Your task to perform on an android device: find photos in the google photos app Image 0: 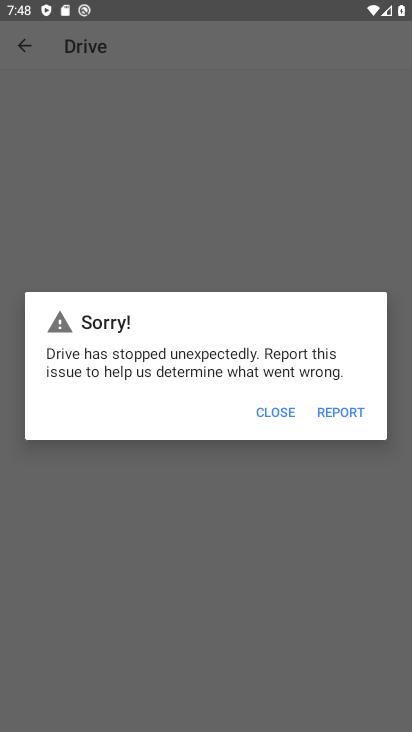
Step 0: press home button
Your task to perform on an android device: find photos in the google photos app Image 1: 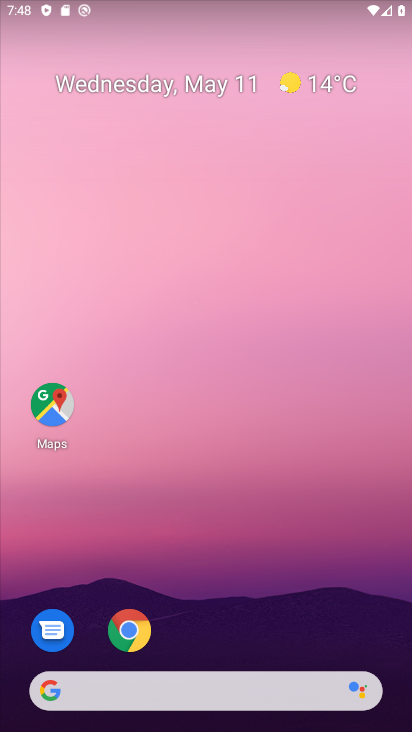
Step 1: drag from (230, 667) to (243, 9)
Your task to perform on an android device: find photos in the google photos app Image 2: 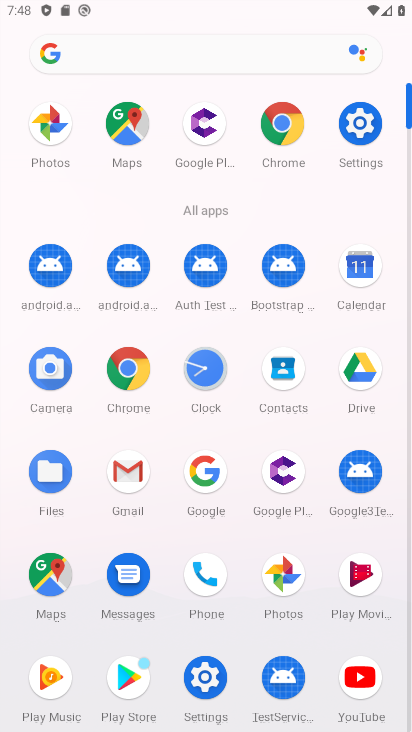
Step 2: click (35, 124)
Your task to perform on an android device: find photos in the google photos app Image 3: 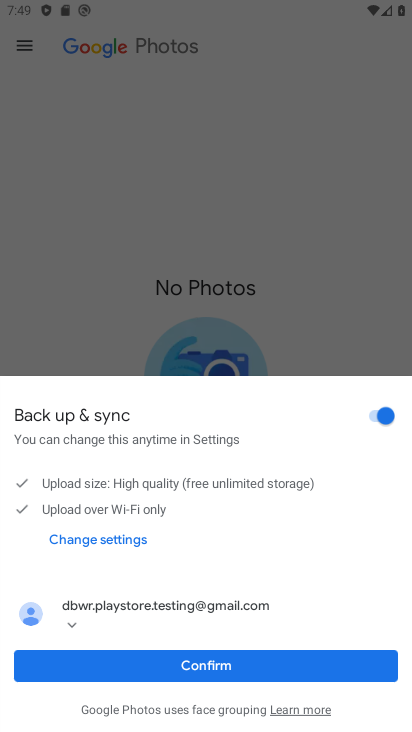
Step 3: click (200, 671)
Your task to perform on an android device: find photos in the google photos app Image 4: 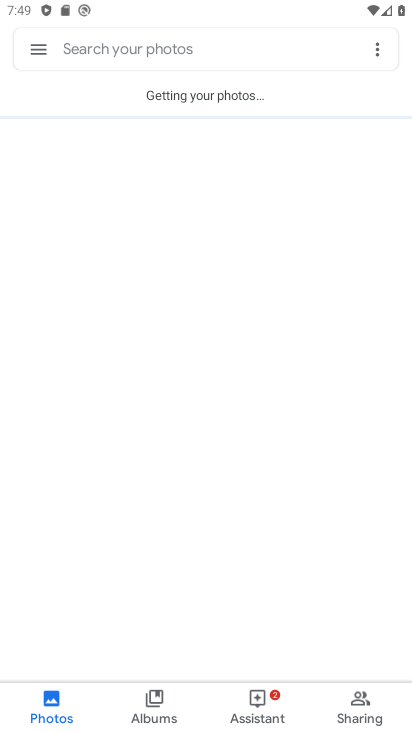
Step 4: drag from (246, 172) to (218, 470)
Your task to perform on an android device: find photos in the google photos app Image 5: 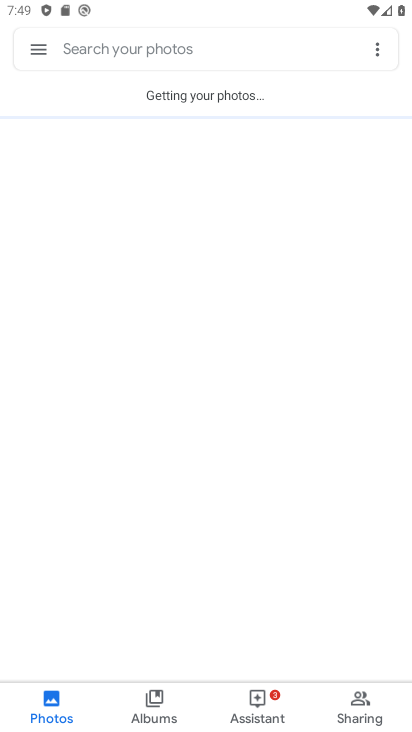
Step 5: click (154, 700)
Your task to perform on an android device: find photos in the google photos app Image 6: 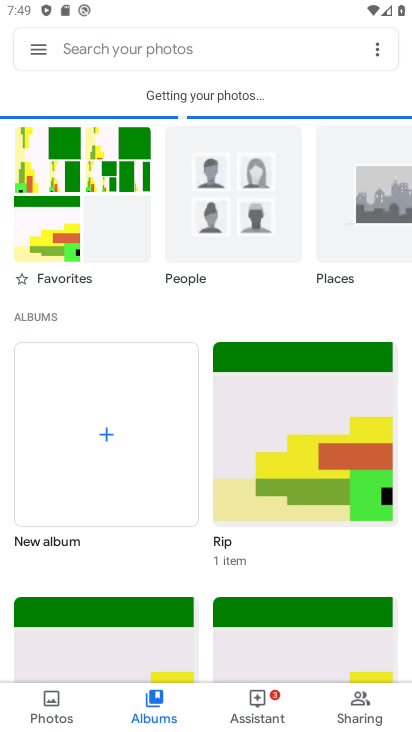
Step 6: click (46, 699)
Your task to perform on an android device: find photos in the google photos app Image 7: 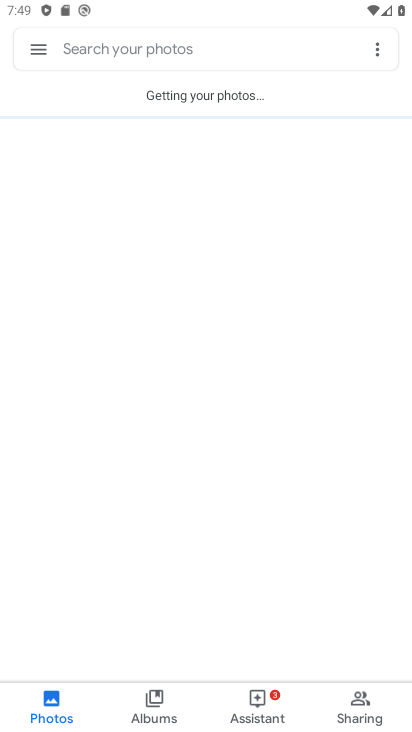
Step 7: task complete